Your task to perform on an android device: Add apple airpods to the cart on ebay, then select checkout. Image 0: 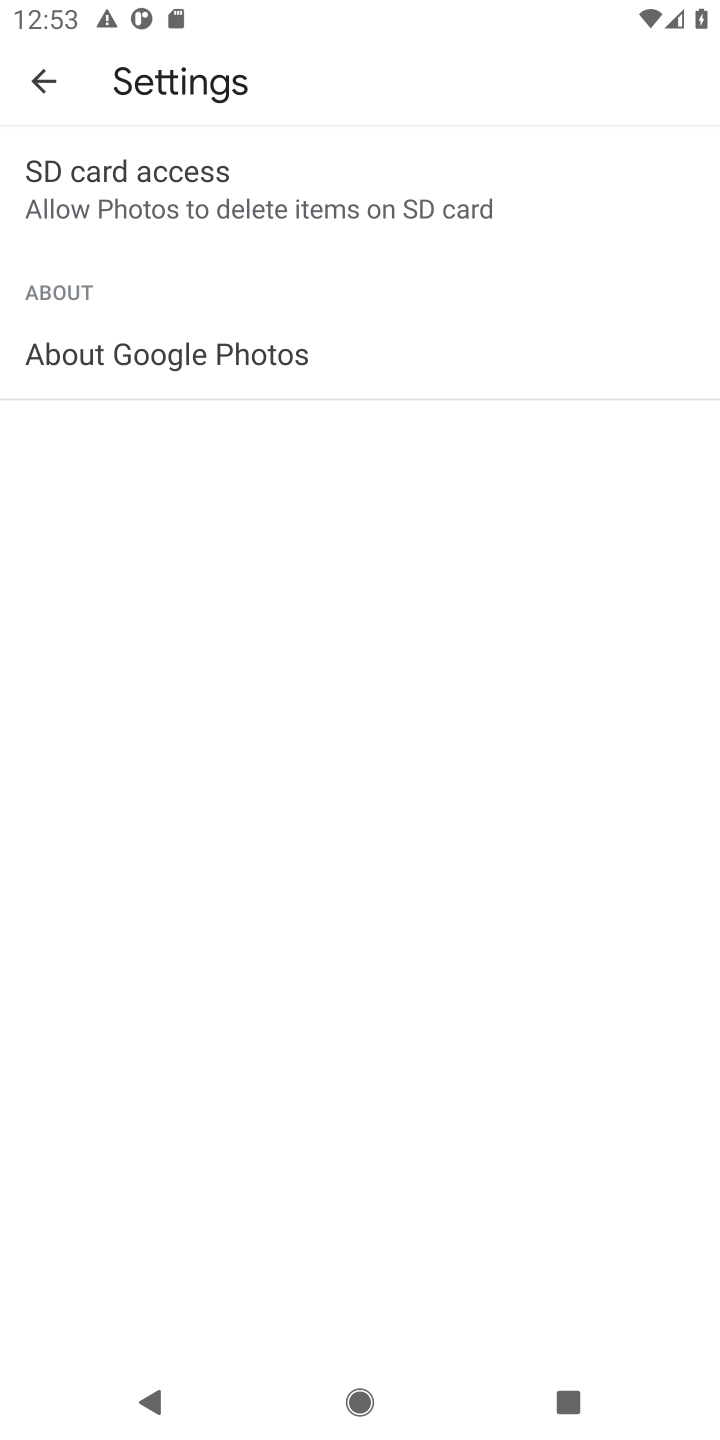
Step 0: press home button
Your task to perform on an android device: Add apple airpods to the cart on ebay, then select checkout. Image 1: 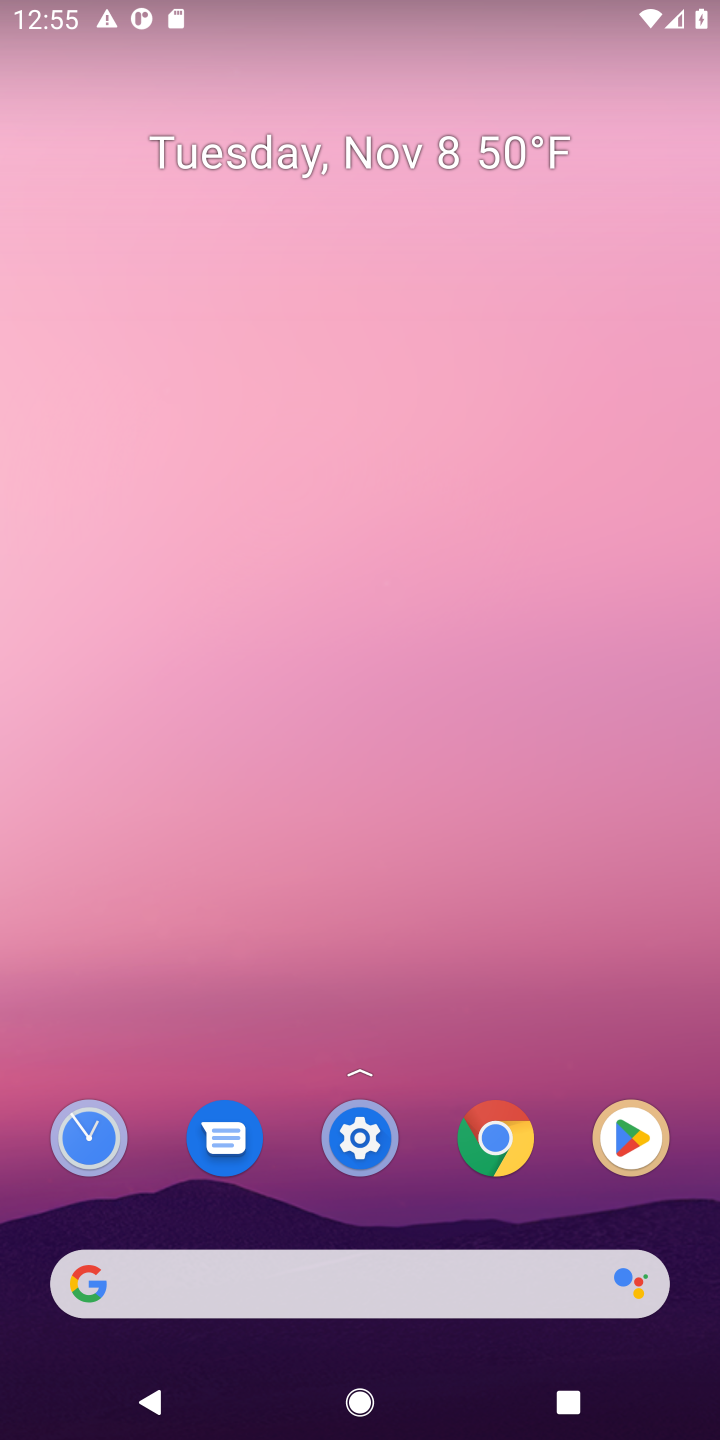
Step 1: click (375, 1290)
Your task to perform on an android device: Add apple airpods to the cart on ebay, then select checkout. Image 2: 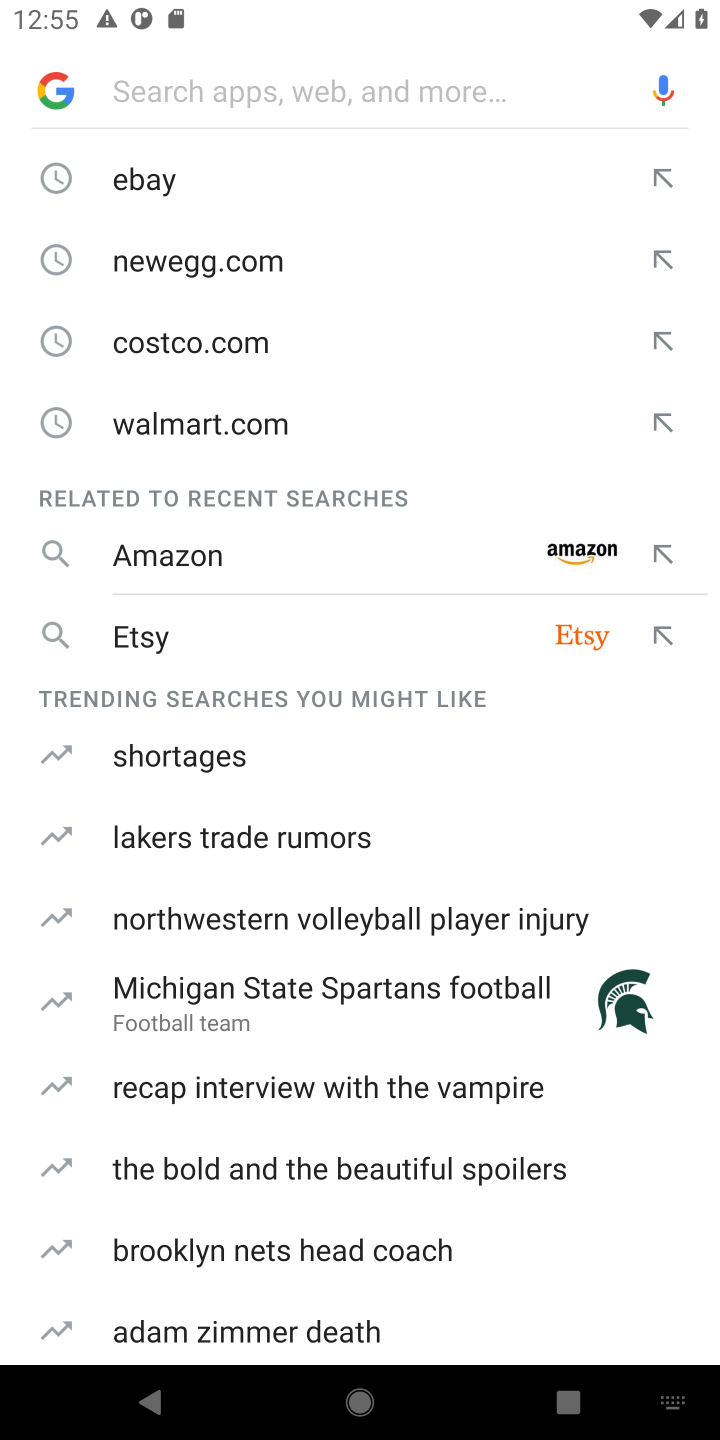
Step 2: click (302, 191)
Your task to perform on an android device: Add apple airpods to the cart on ebay, then select checkout. Image 3: 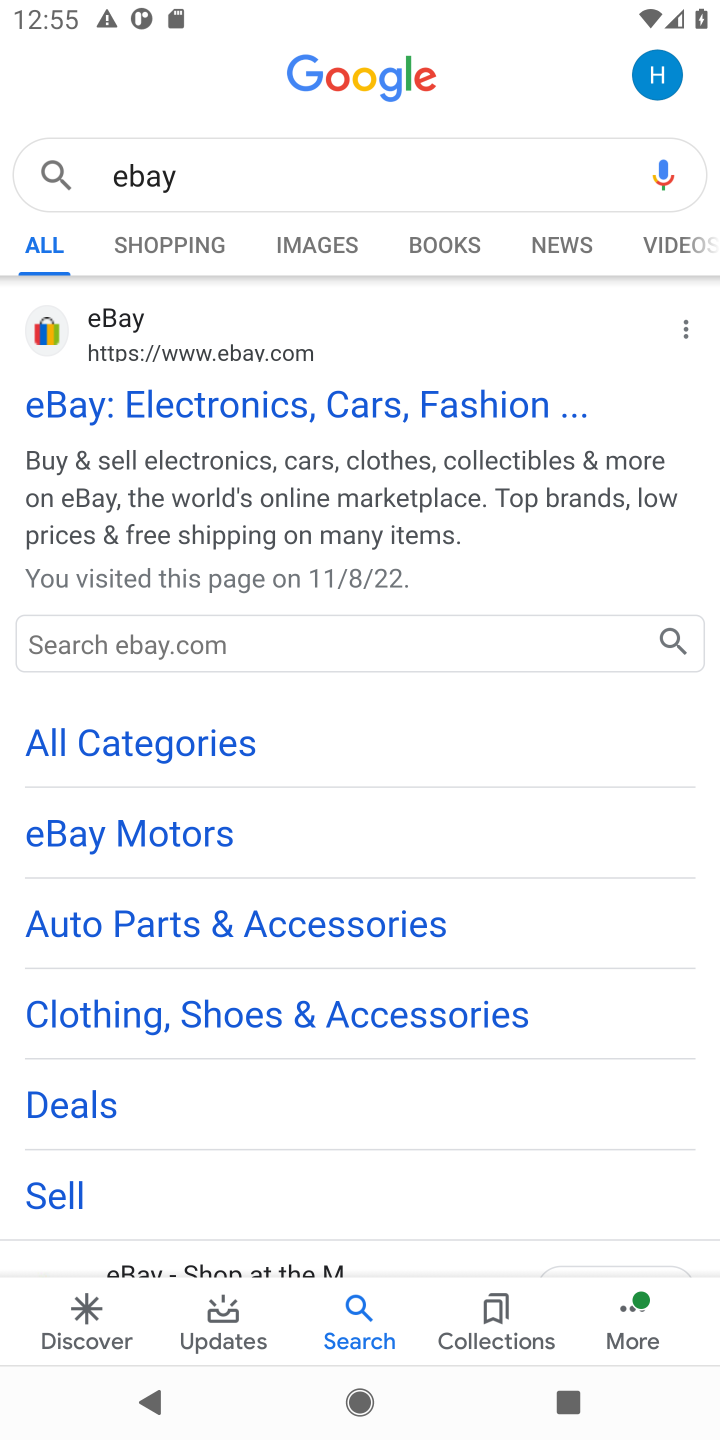
Step 3: click (237, 398)
Your task to perform on an android device: Add apple airpods to the cart on ebay, then select checkout. Image 4: 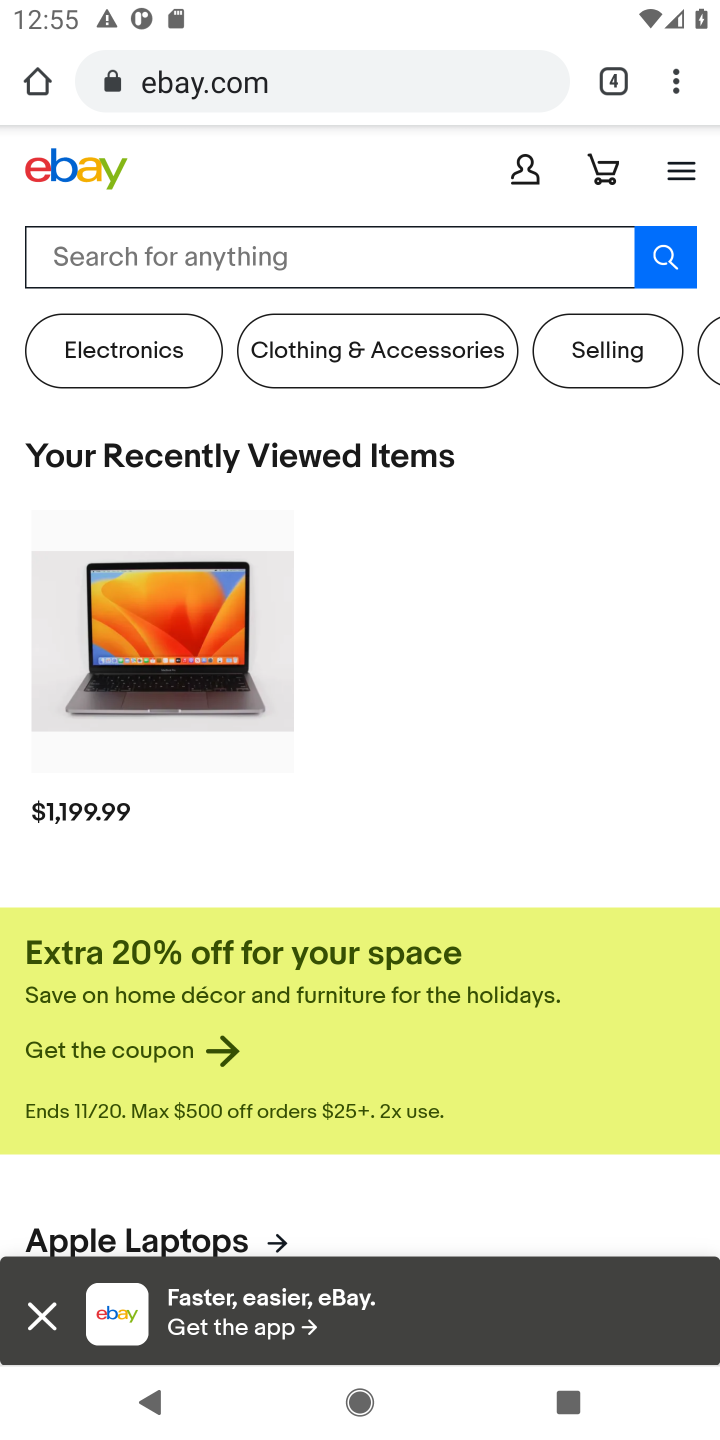
Step 4: click (179, 623)
Your task to perform on an android device: Add apple airpods to the cart on ebay, then select checkout. Image 5: 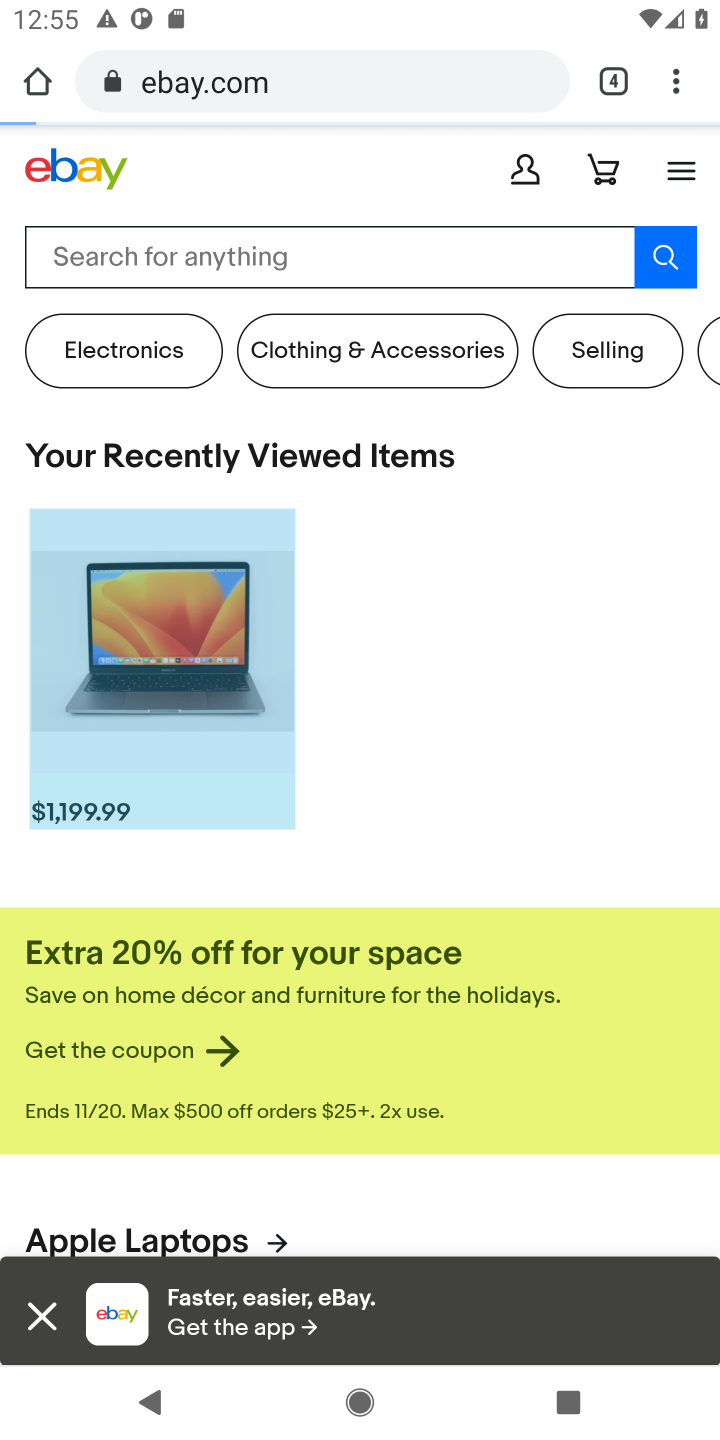
Step 5: task complete